Your task to perform on an android device: Go to Wikipedia Image 0: 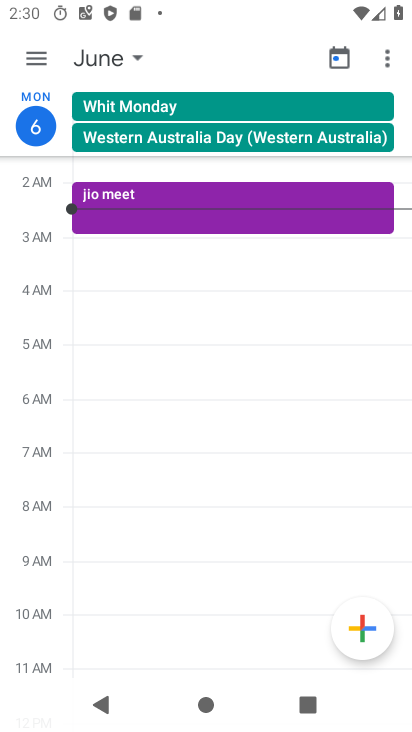
Step 0: press home button
Your task to perform on an android device: Go to Wikipedia Image 1: 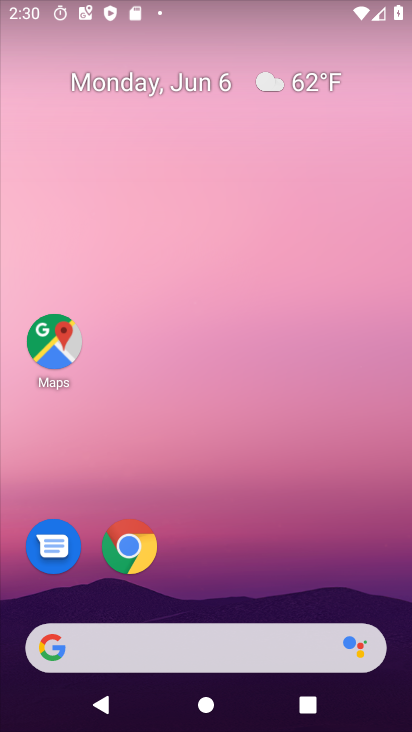
Step 1: click (136, 548)
Your task to perform on an android device: Go to Wikipedia Image 2: 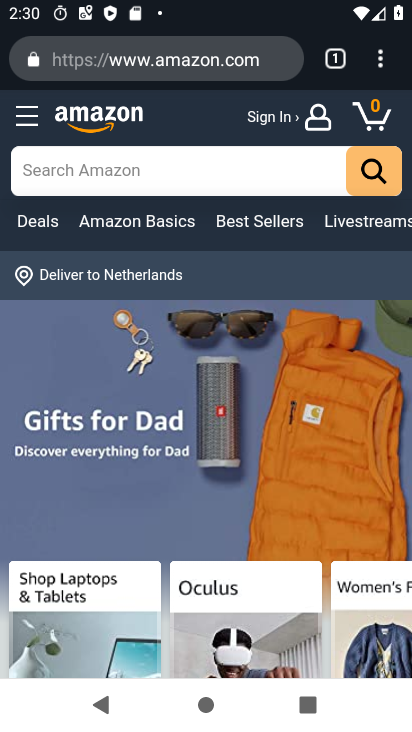
Step 2: click (240, 68)
Your task to perform on an android device: Go to Wikipedia Image 3: 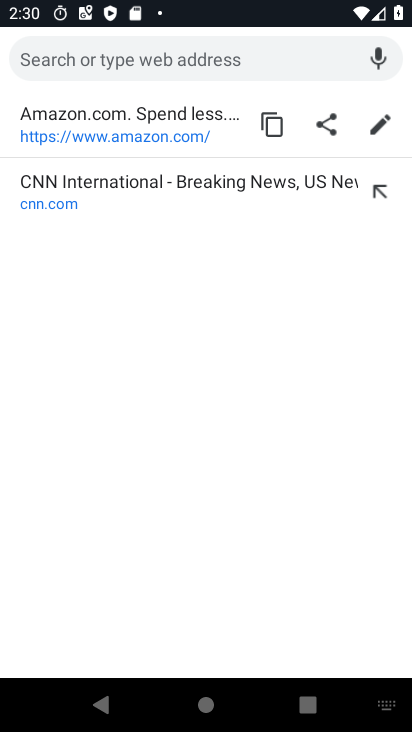
Step 3: type "wikipedia"
Your task to perform on an android device: Go to Wikipedia Image 4: 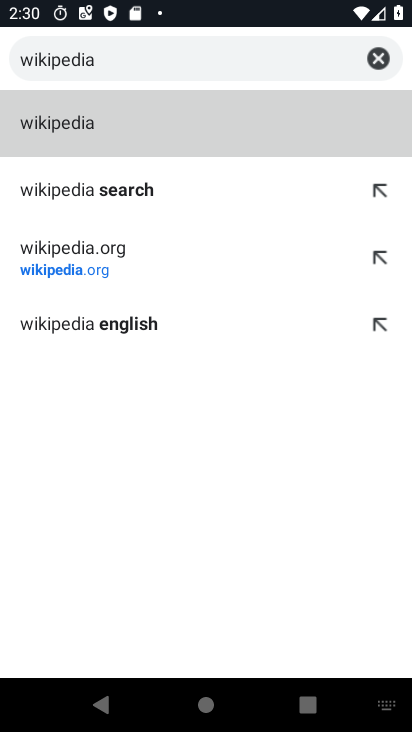
Step 4: click (74, 270)
Your task to perform on an android device: Go to Wikipedia Image 5: 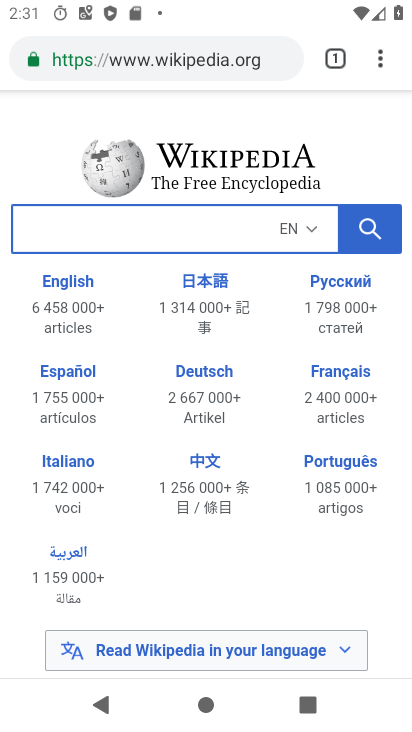
Step 5: task complete